Your task to perform on an android device: Open settings Image 0: 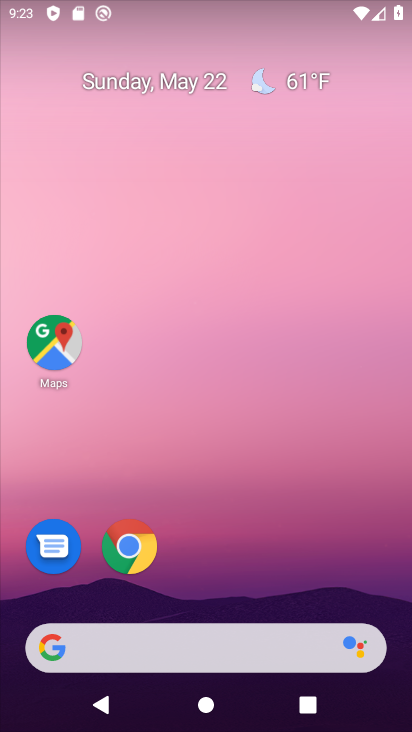
Step 0: drag from (172, 640) to (222, 144)
Your task to perform on an android device: Open settings Image 1: 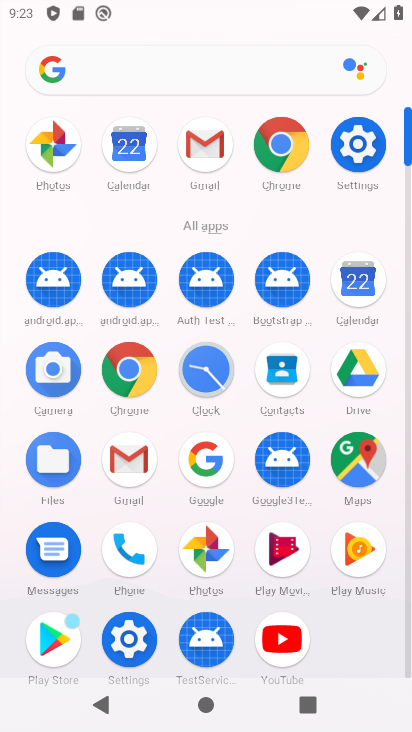
Step 1: click (349, 150)
Your task to perform on an android device: Open settings Image 2: 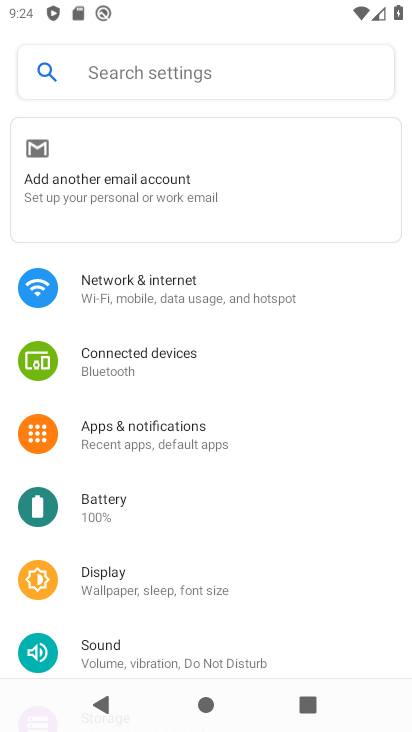
Step 2: task complete